Your task to perform on an android device: check out phone information Image 0: 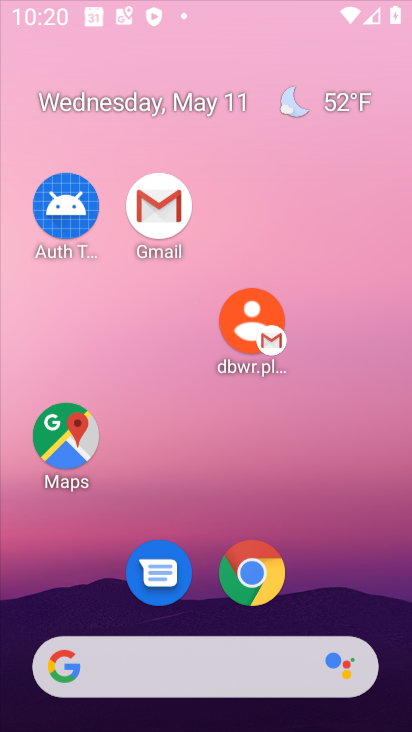
Step 0: drag from (382, 595) to (156, 45)
Your task to perform on an android device: check out phone information Image 1: 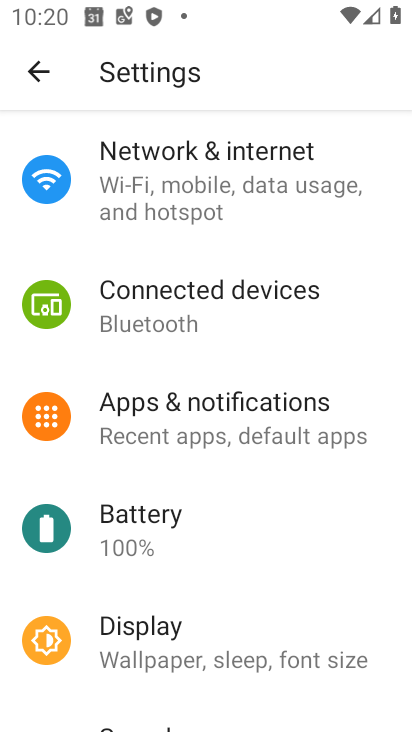
Step 1: drag from (230, 563) to (233, 34)
Your task to perform on an android device: check out phone information Image 2: 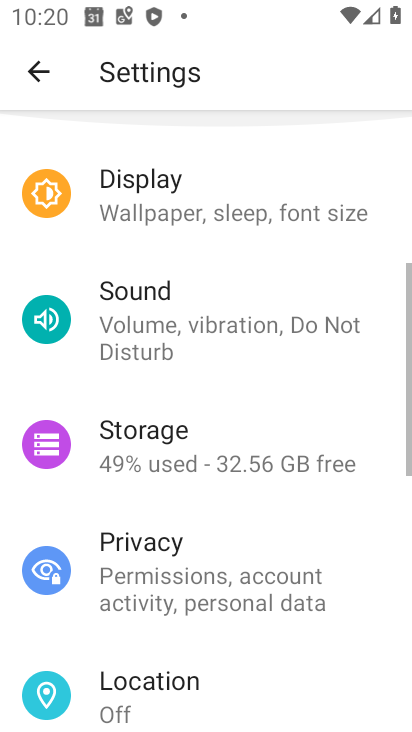
Step 2: drag from (227, 564) to (195, 170)
Your task to perform on an android device: check out phone information Image 3: 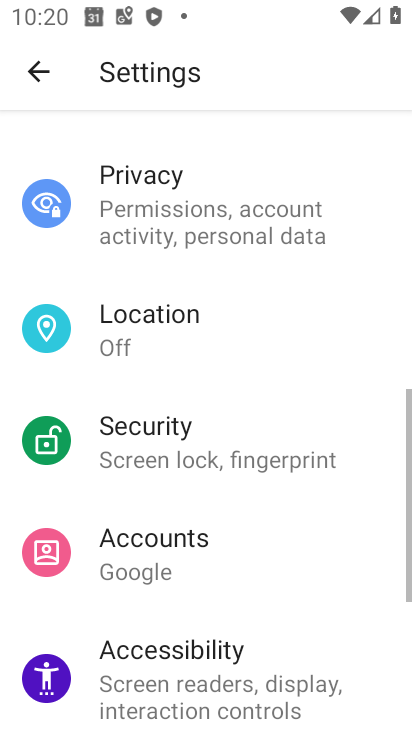
Step 3: drag from (181, 551) to (216, 241)
Your task to perform on an android device: check out phone information Image 4: 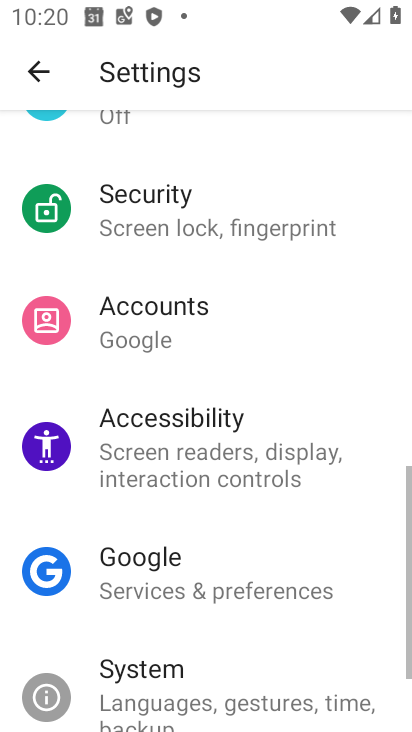
Step 4: drag from (235, 544) to (234, 74)
Your task to perform on an android device: check out phone information Image 5: 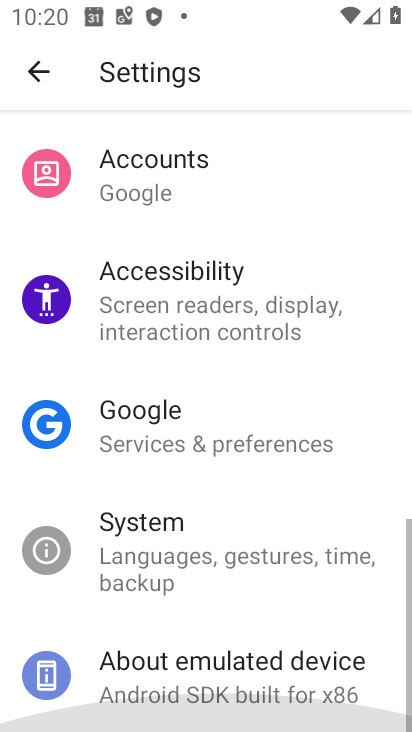
Step 5: drag from (186, 467) to (176, 154)
Your task to perform on an android device: check out phone information Image 6: 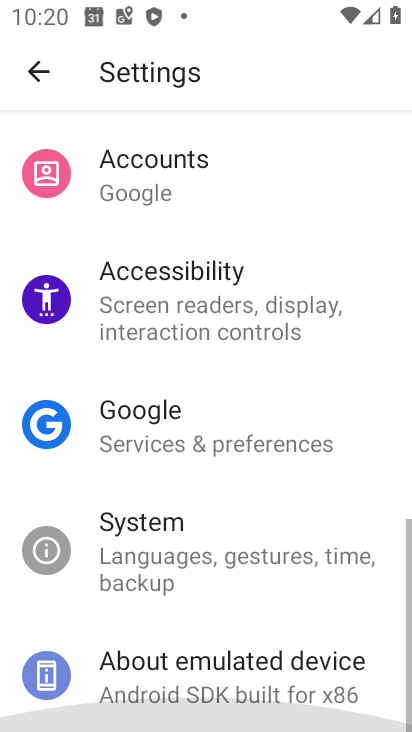
Step 6: drag from (42, 682) to (137, 155)
Your task to perform on an android device: check out phone information Image 7: 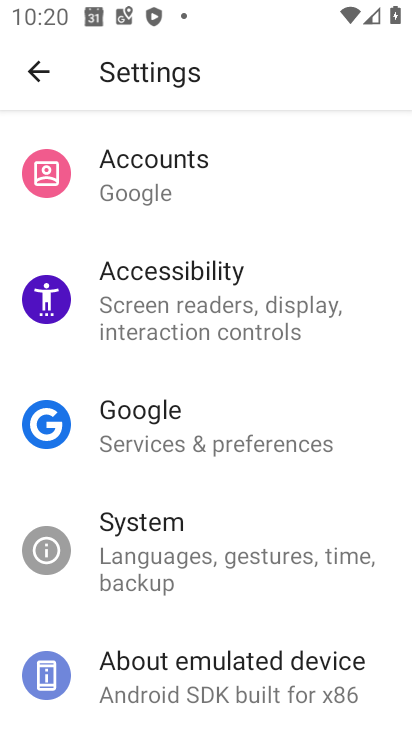
Step 7: click (190, 680)
Your task to perform on an android device: check out phone information Image 8: 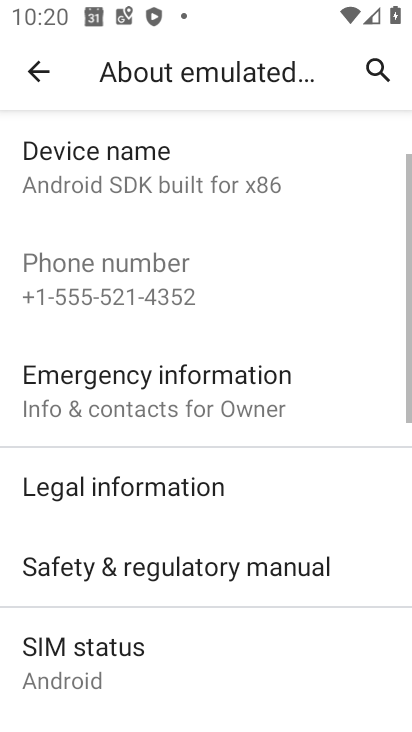
Step 8: task complete